Your task to perform on an android device: What is the news today? Image 0: 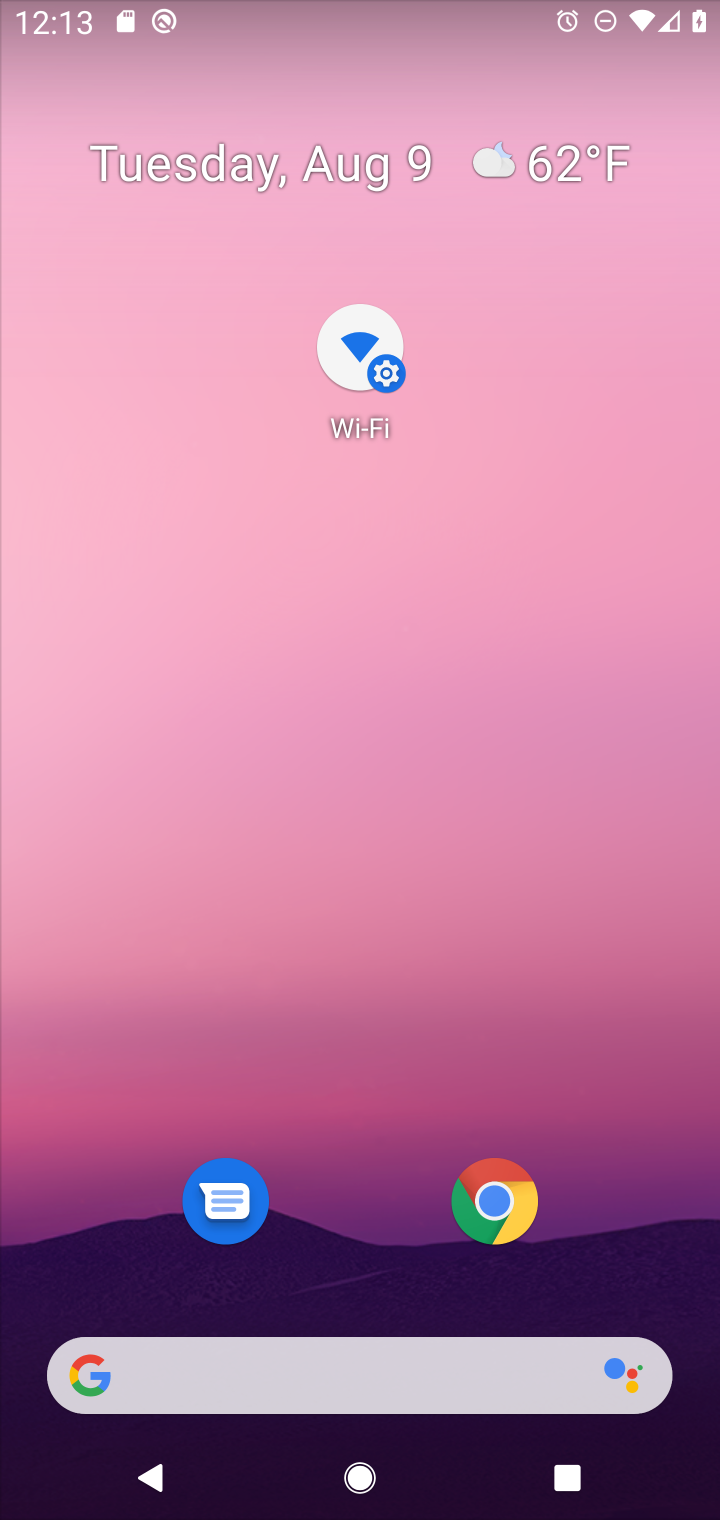
Step 0: press home button
Your task to perform on an android device: What is the news today? Image 1: 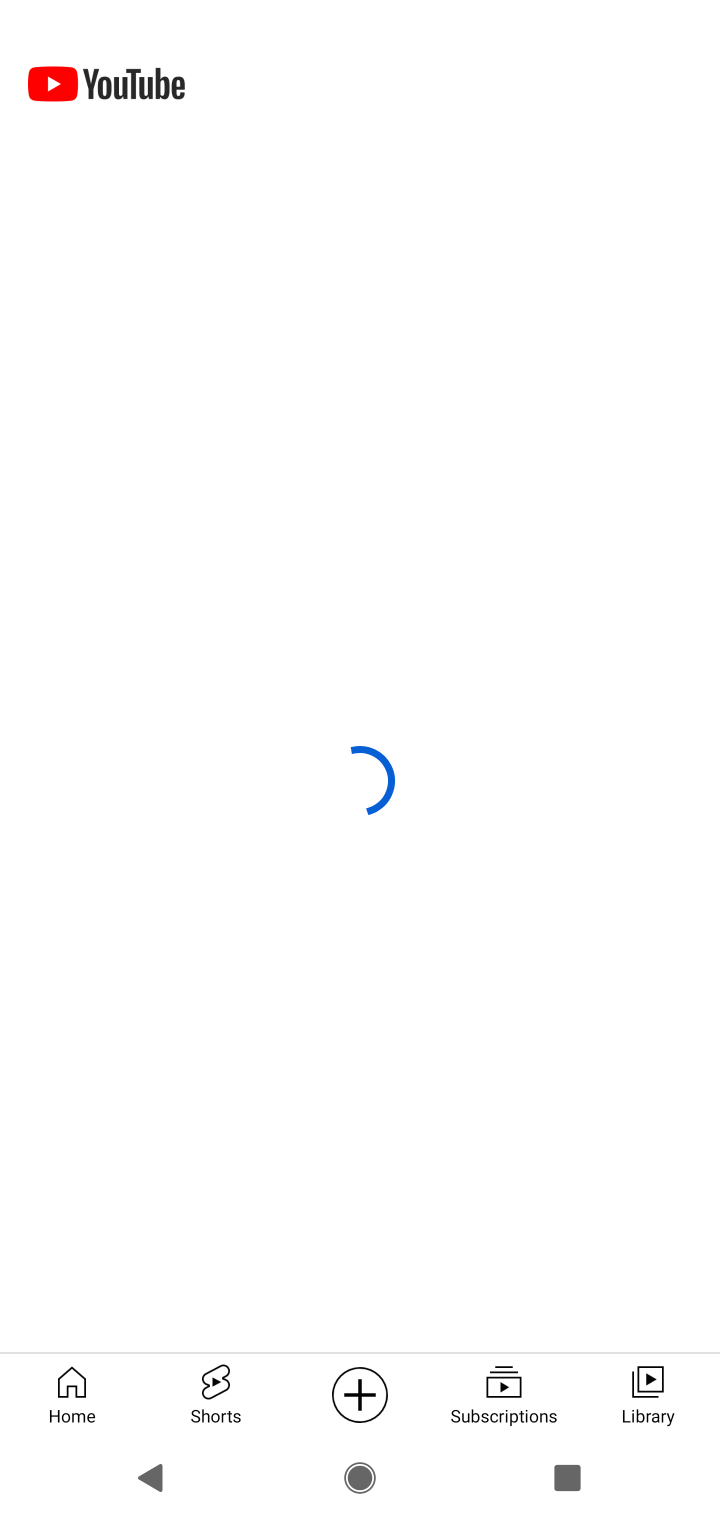
Step 1: press home button
Your task to perform on an android device: What is the news today? Image 2: 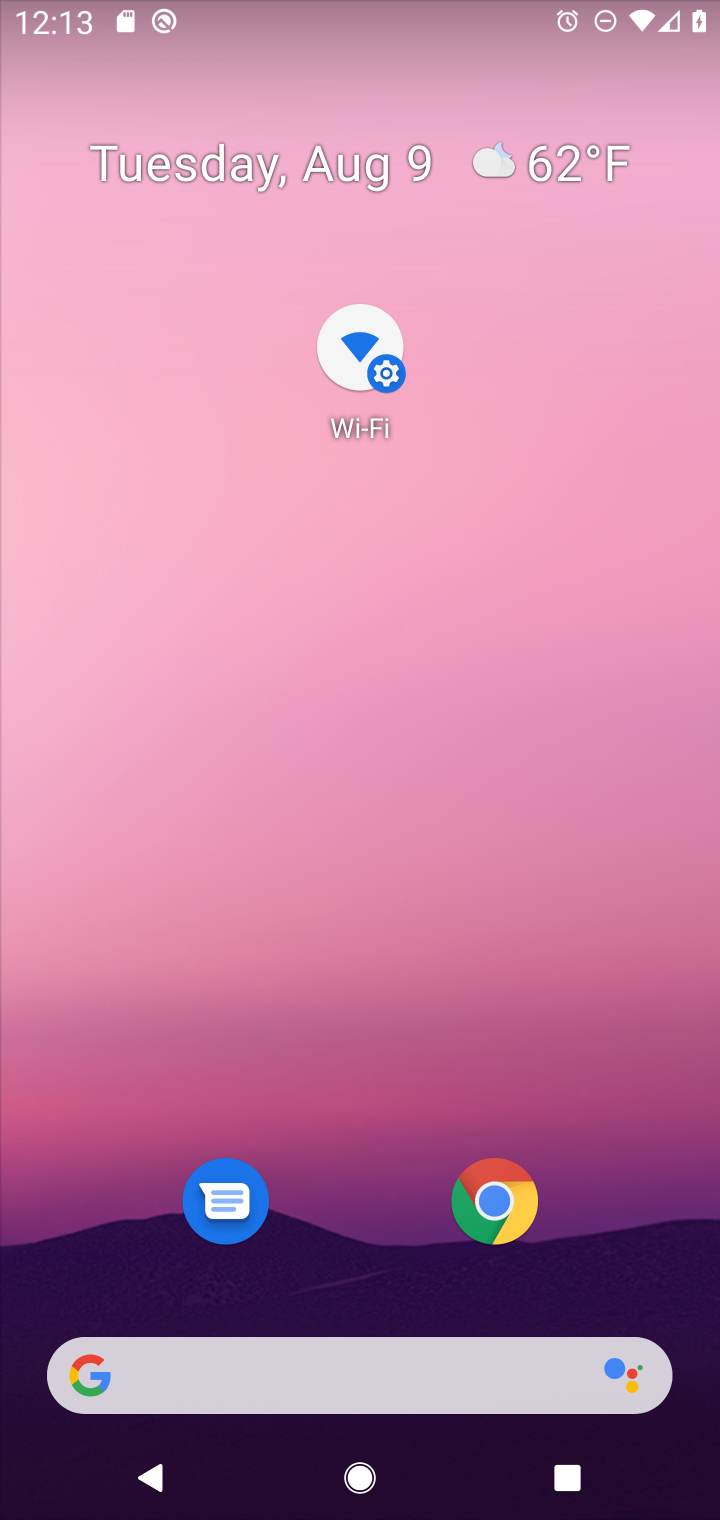
Step 2: drag from (603, 1193) to (589, 583)
Your task to perform on an android device: What is the news today? Image 3: 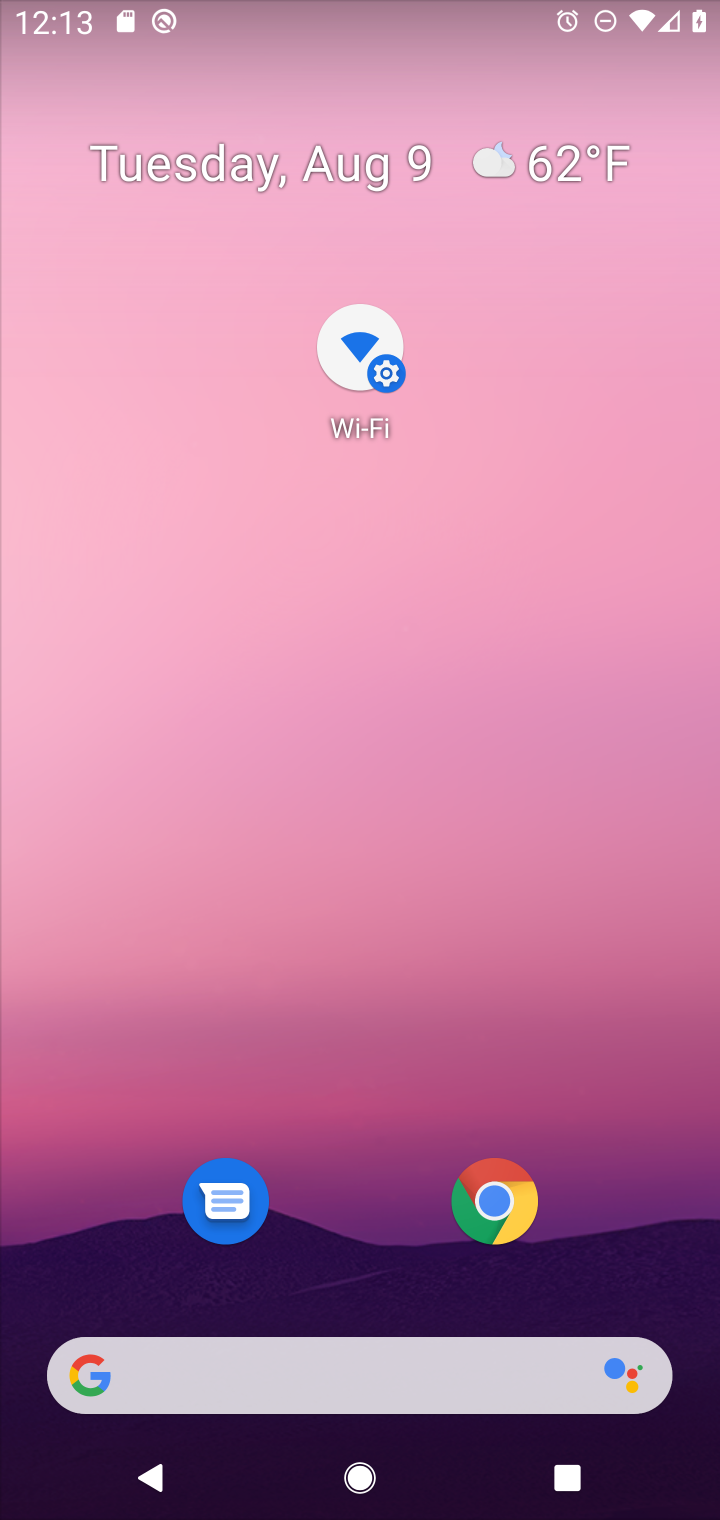
Step 3: drag from (4, 509) to (716, 792)
Your task to perform on an android device: What is the news today? Image 4: 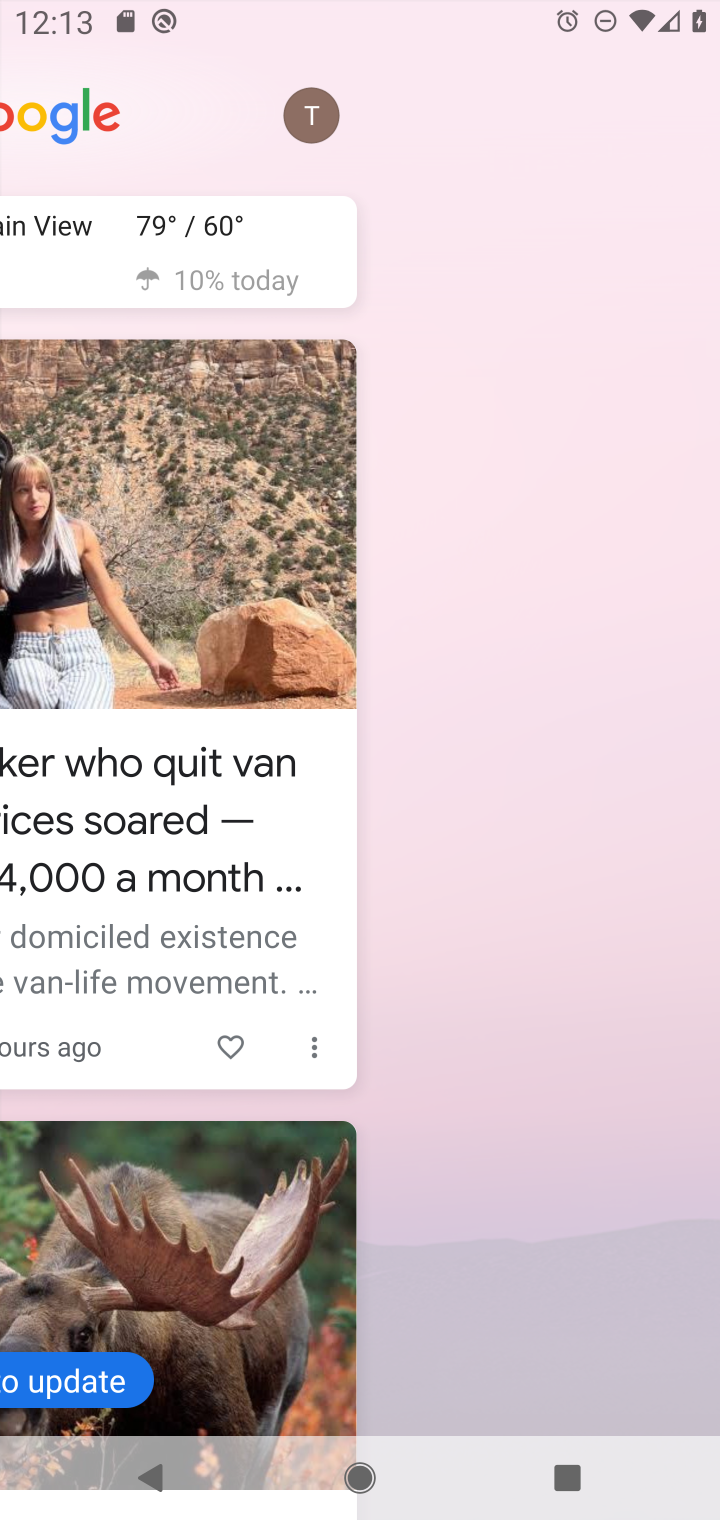
Step 4: drag from (696, 710) to (692, 1106)
Your task to perform on an android device: What is the news today? Image 5: 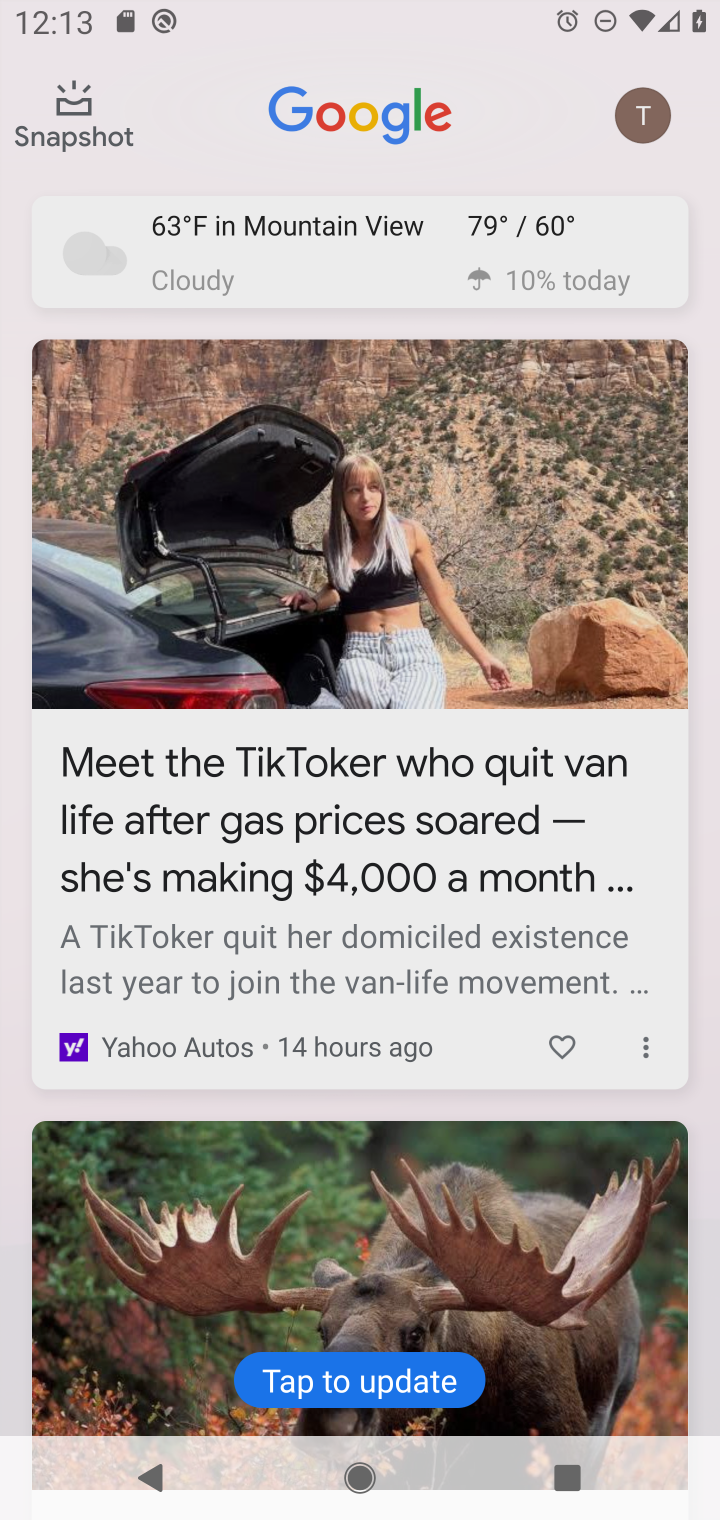
Step 5: drag from (445, 1148) to (447, 526)
Your task to perform on an android device: What is the news today? Image 6: 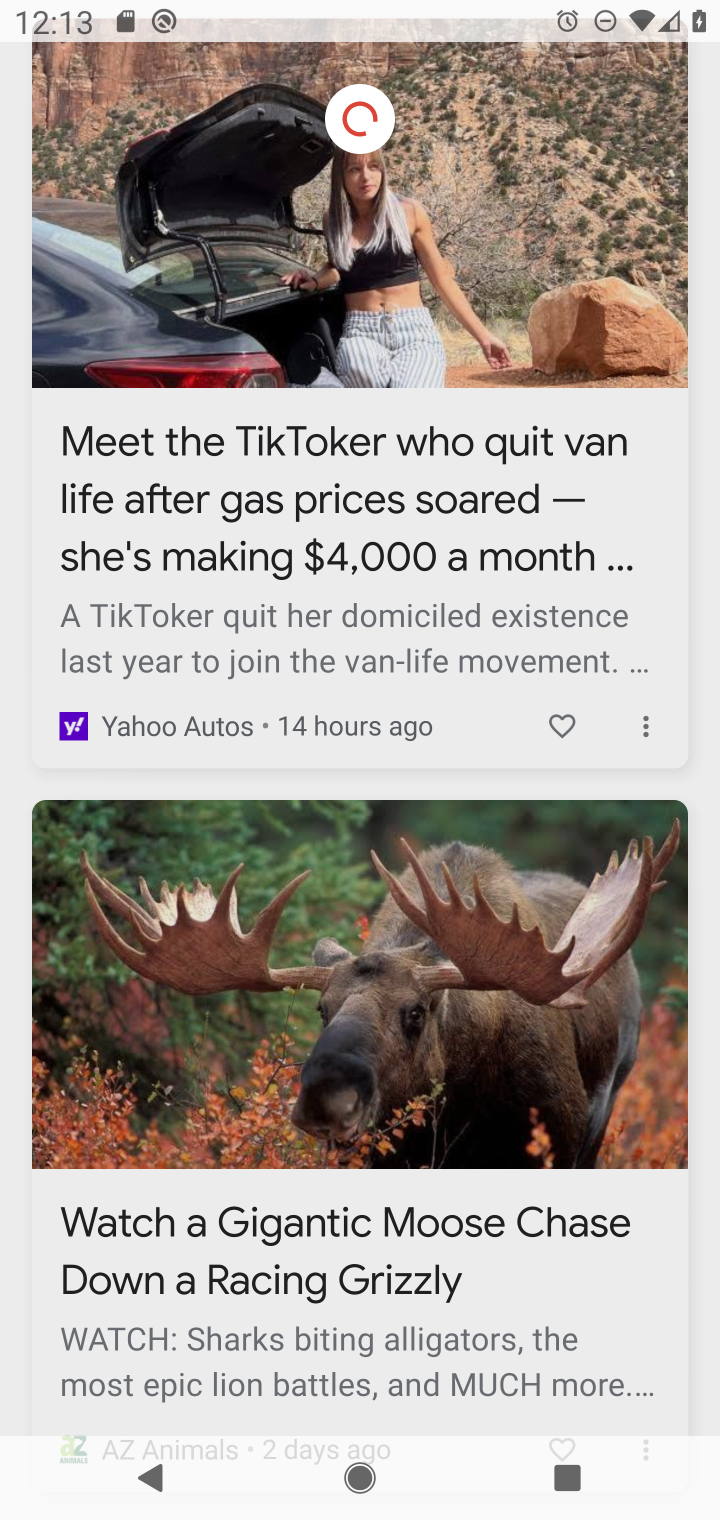
Step 6: drag from (399, 1031) to (423, 464)
Your task to perform on an android device: What is the news today? Image 7: 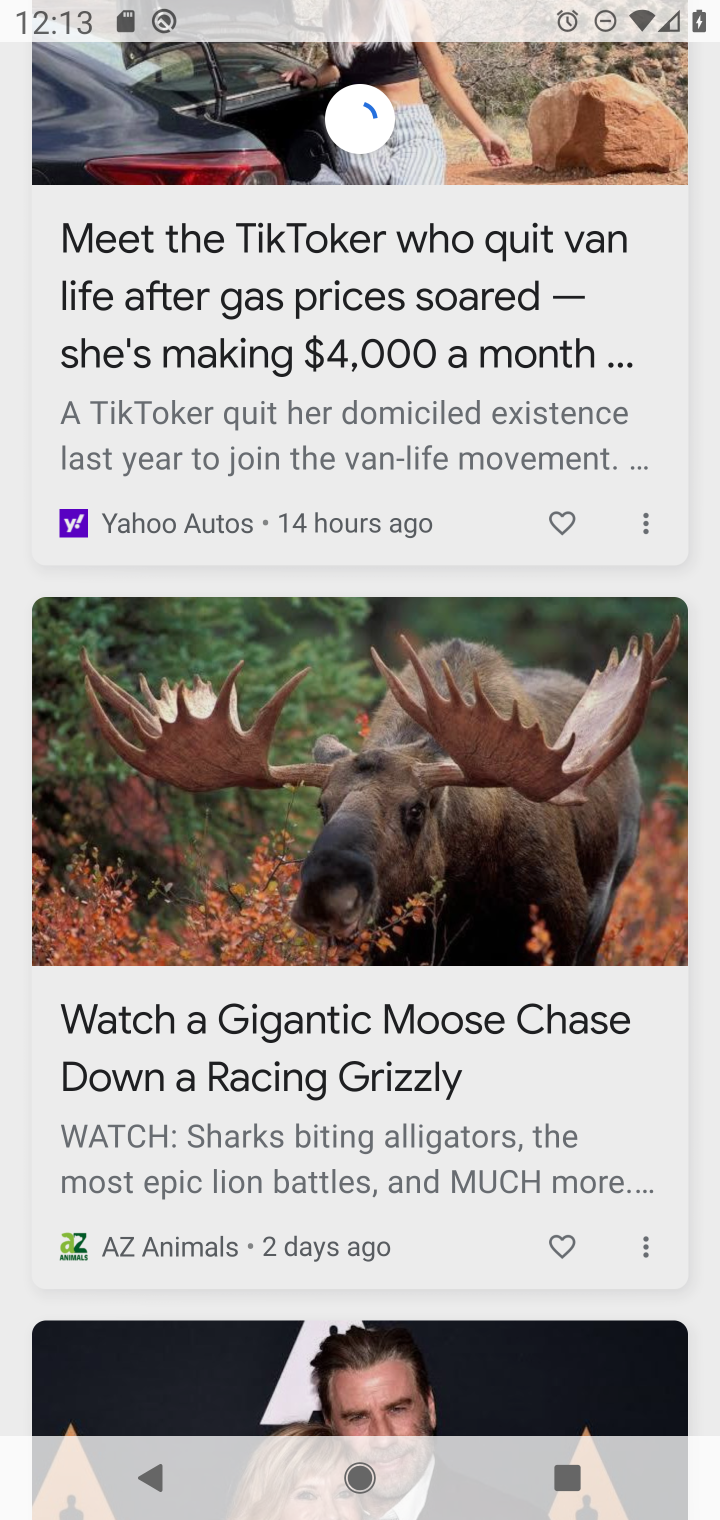
Step 7: drag from (419, 949) to (395, 364)
Your task to perform on an android device: What is the news today? Image 8: 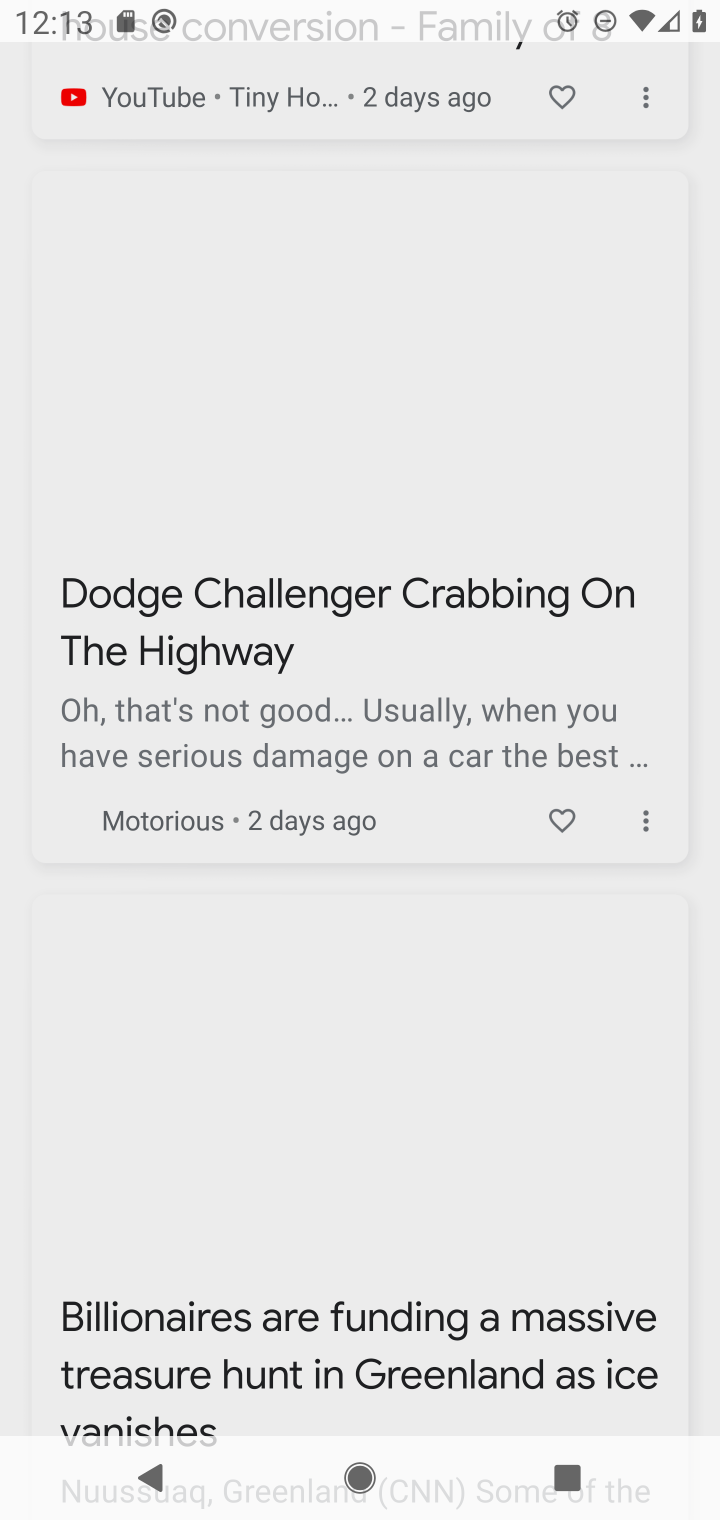
Step 8: click (426, 465)
Your task to perform on an android device: What is the news today? Image 9: 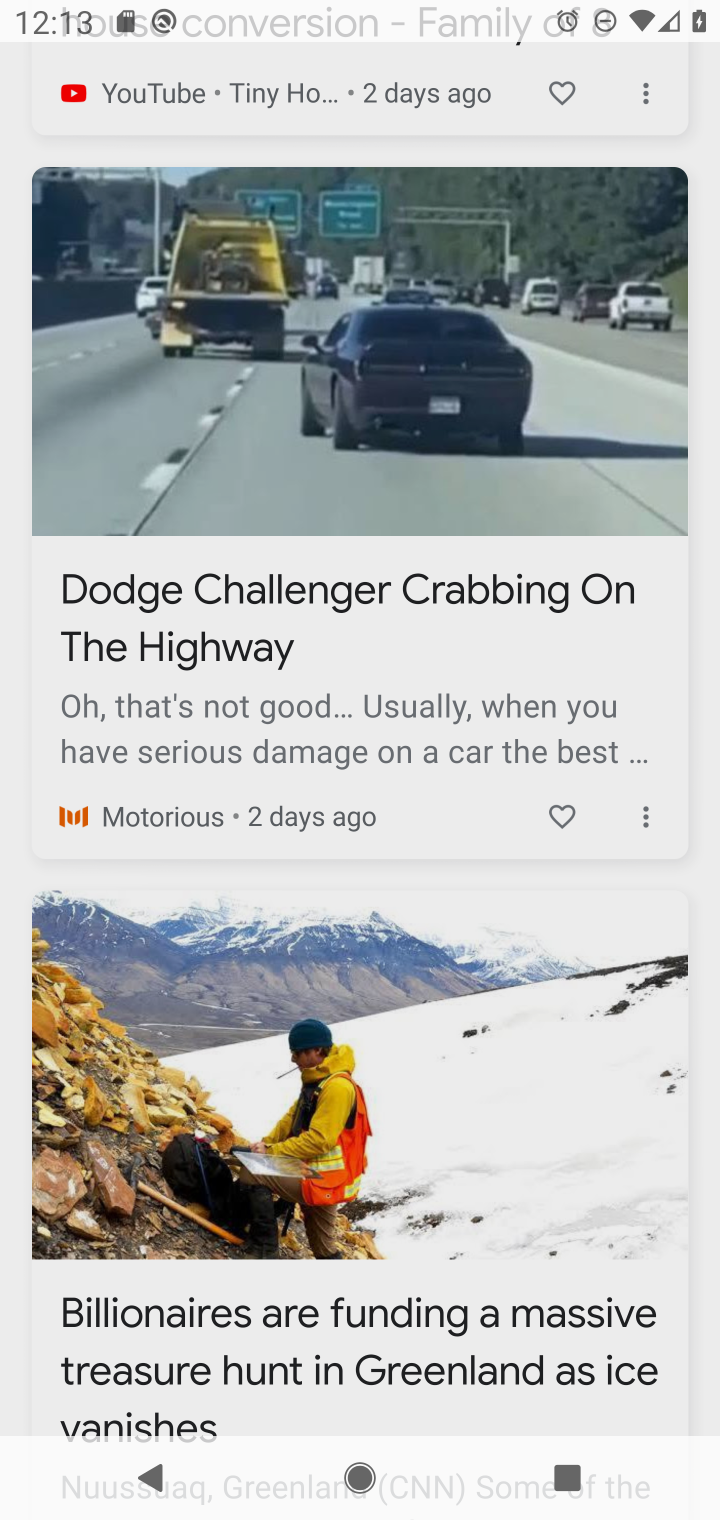
Step 9: task complete